Your task to perform on an android device: Go to ESPN.com Image 0: 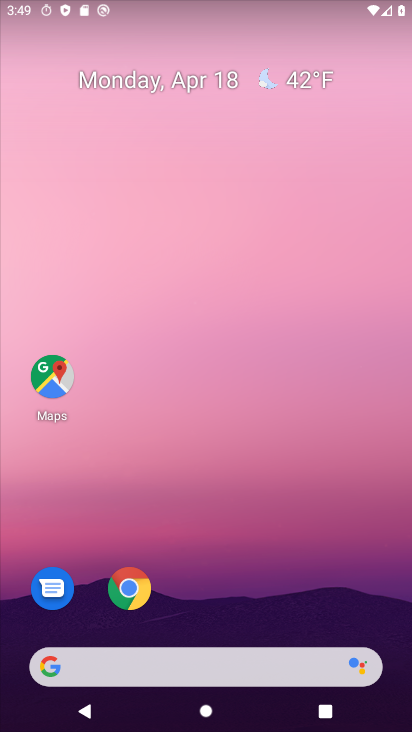
Step 0: click (126, 583)
Your task to perform on an android device: Go to ESPN.com Image 1: 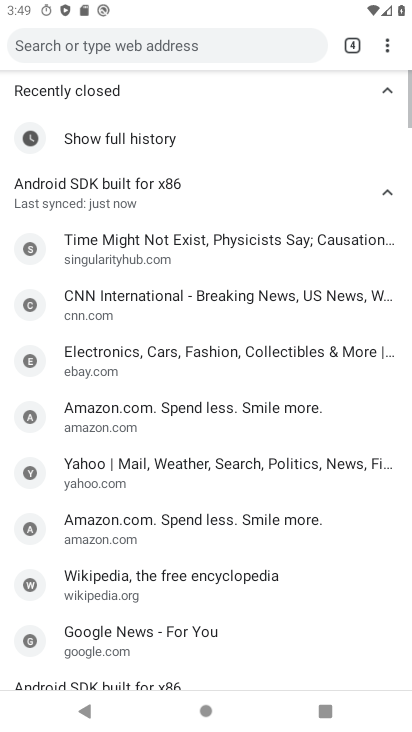
Step 1: click (350, 41)
Your task to perform on an android device: Go to ESPN.com Image 2: 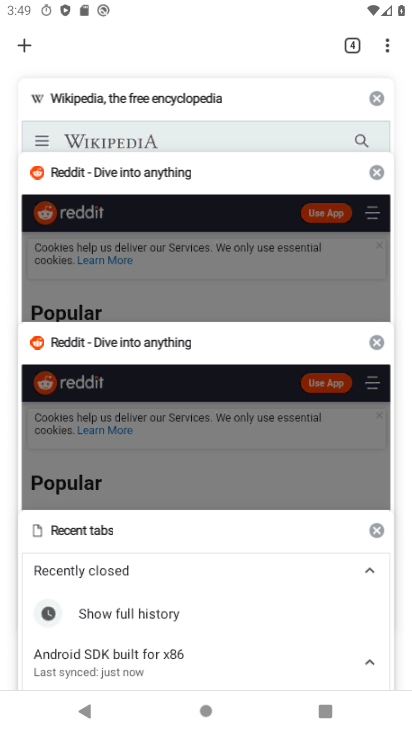
Step 2: click (28, 56)
Your task to perform on an android device: Go to ESPN.com Image 3: 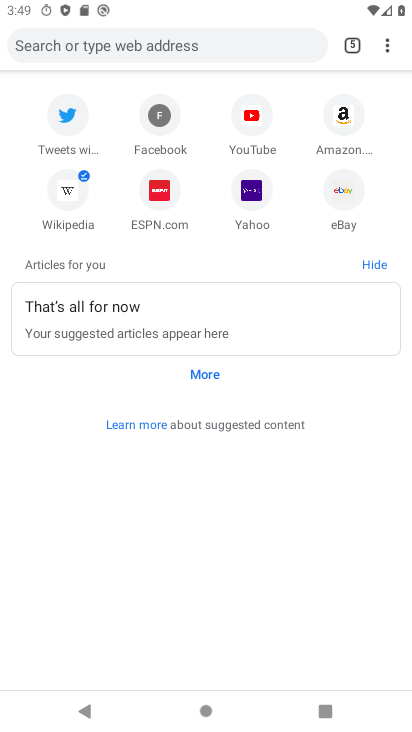
Step 3: click (166, 187)
Your task to perform on an android device: Go to ESPN.com Image 4: 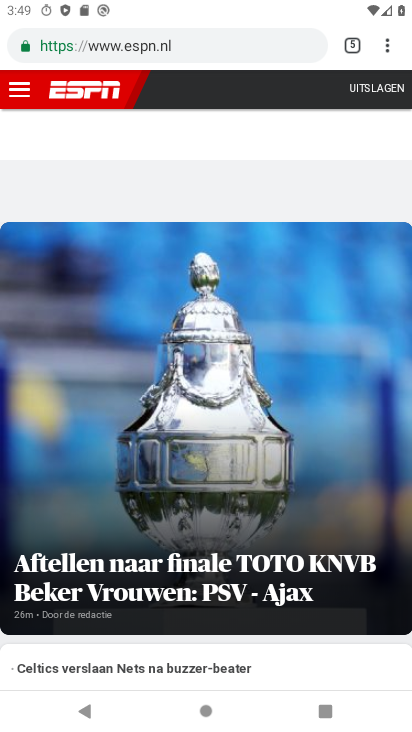
Step 4: task complete